Your task to perform on an android device: turn off location Image 0: 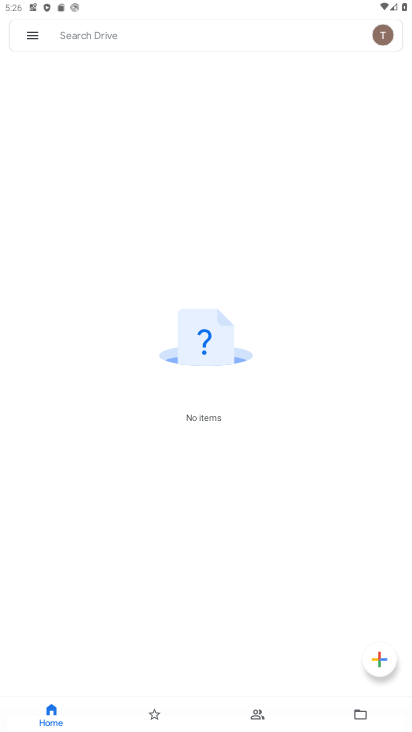
Step 0: press home button
Your task to perform on an android device: turn off location Image 1: 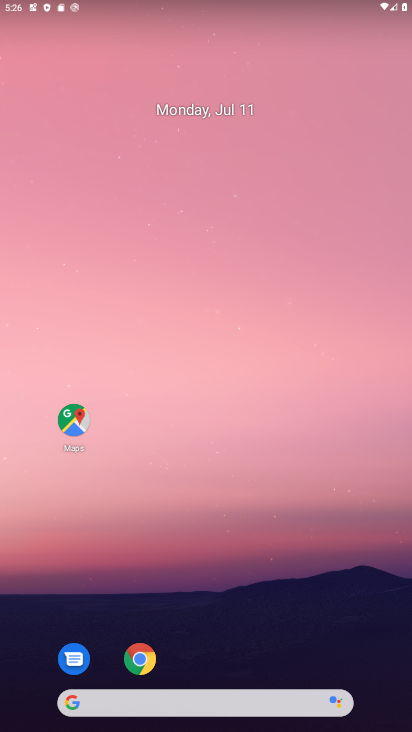
Step 1: drag from (344, 637) to (325, 60)
Your task to perform on an android device: turn off location Image 2: 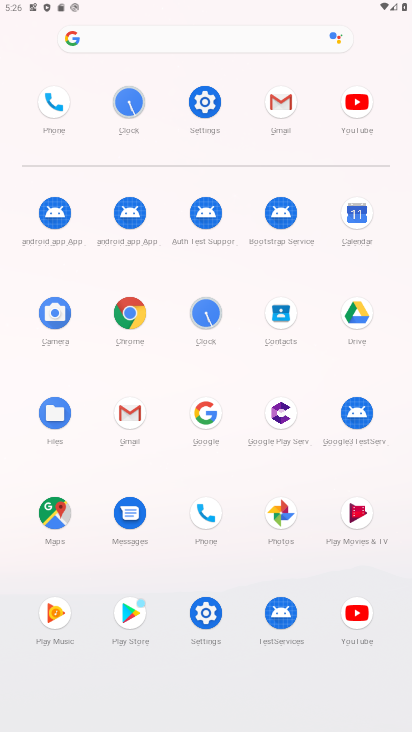
Step 2: click (206, 612)
Your task to perform on an android device: turn off location Image 3: 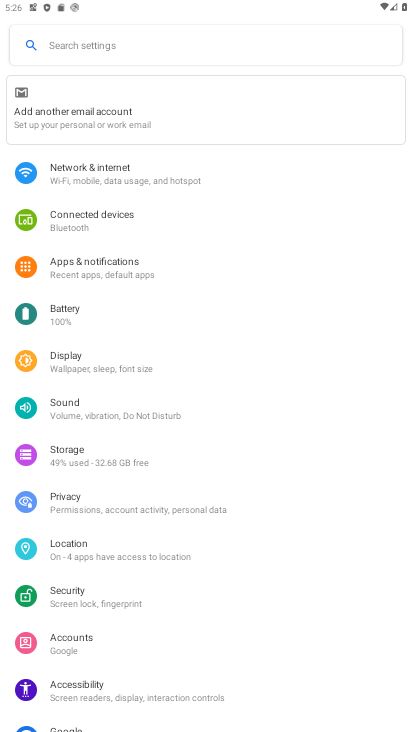
Step 3: click (78, 544)
Your task to perform on an android device: turn off location Image 4: 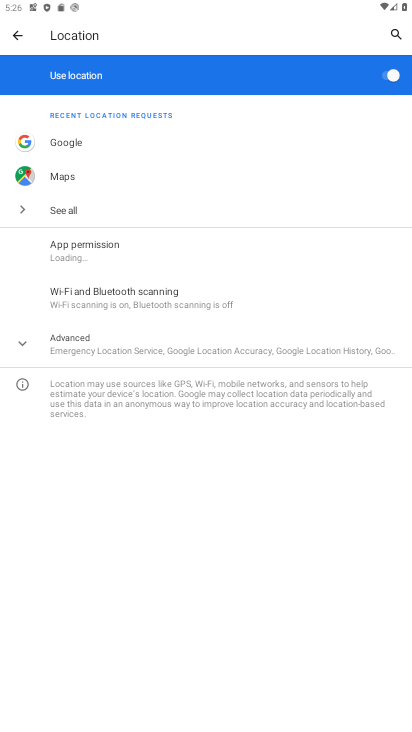
Step 4: click (383, 73)
Your task to perform on an android device: turn off location Image 5: 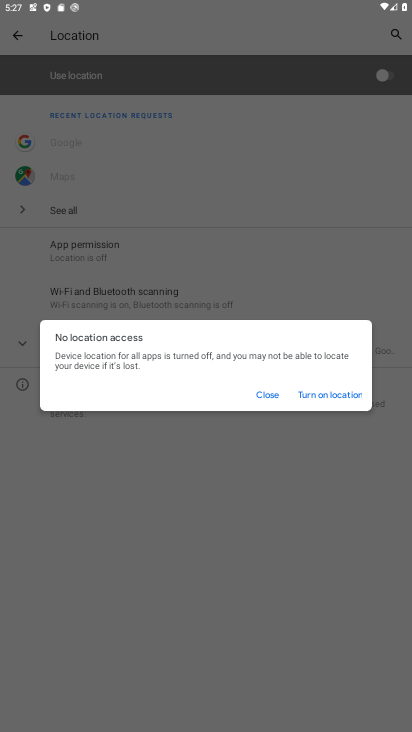
Step 5: click (262, 398)
Your task to perform on an android device: turn off location Image 6: 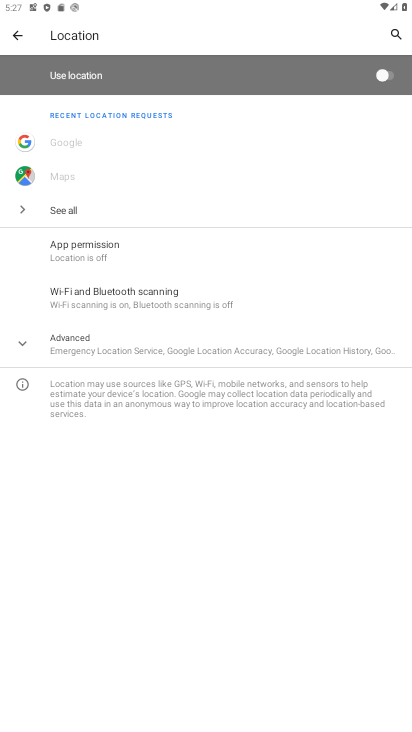
Step 6: task complete